Your task to perform on an android device: Search for the best custom wallets on Etsy. Image 0: 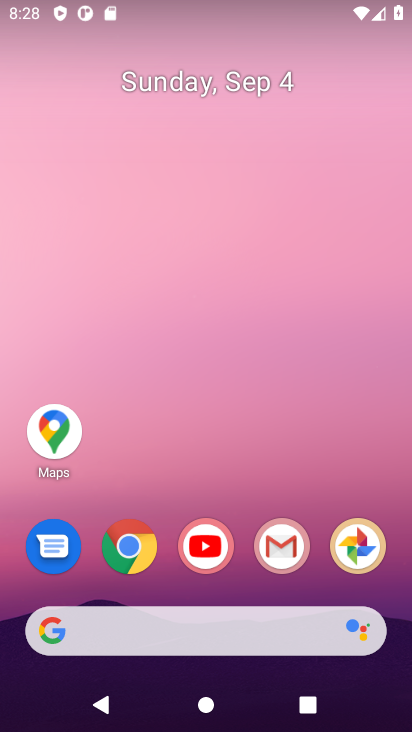
Step 0: click (137, 547)
Your task to perform on an android device: Search for the best custom wallets on Etsy. Image 1: 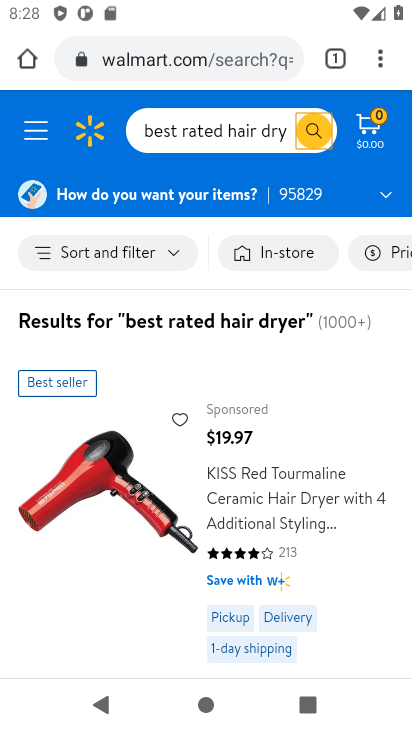
Step 1: click (154, 57)
Your task to perform on an android device: Search for the best custom wallets on Etsy. Image 2: 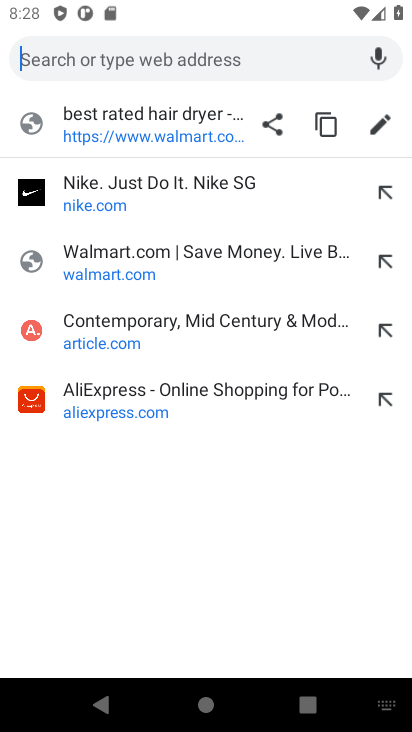
Step 2: type "Etsy."
Your task to perform on an android device: Search for the best custom wallets on Etsy. Image 3: 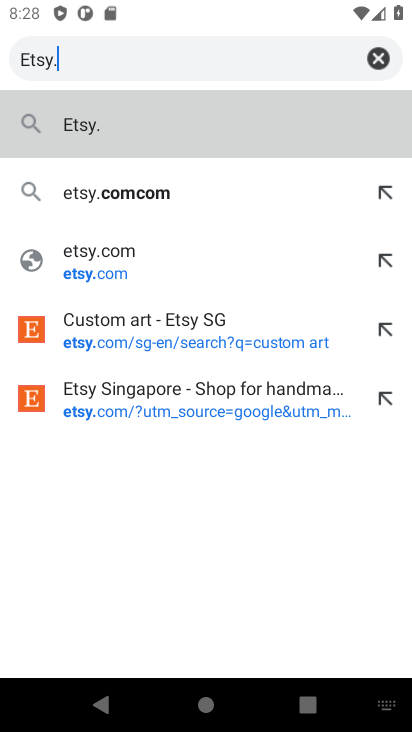
Step 3: click (78, 142)
Your task to perform on an android device: Search for the best custom wallets on Etsy. Image 4: 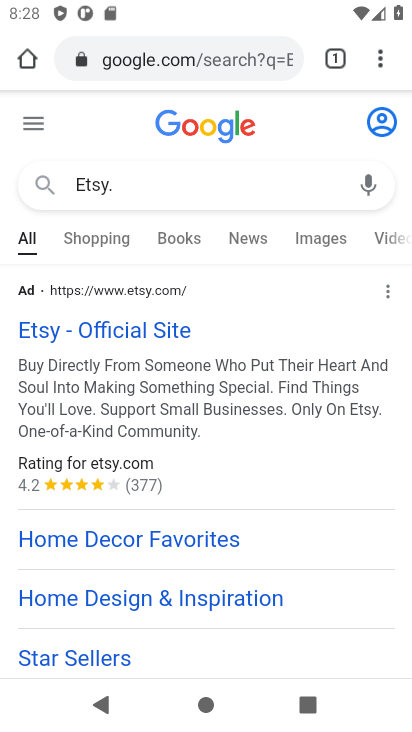
Step 4: click (86, 333)
Your task to perform on an android device: Search for the best custom wallets on Etsy. Image 5: 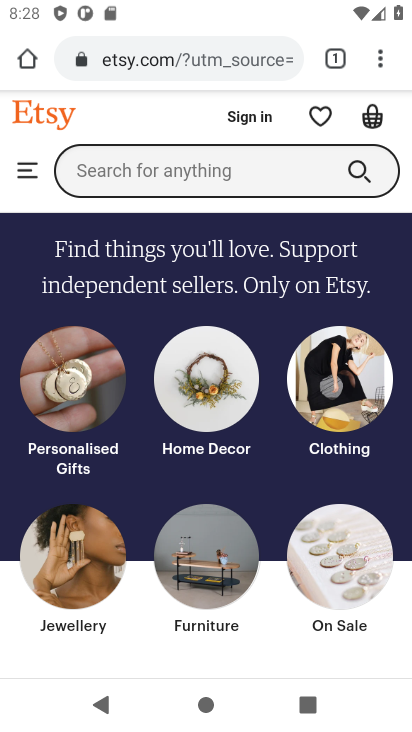
Step 5: click (174, 168)
Your task to perform on an android device: Search for the best custom wallets on Etsy. Image 6: 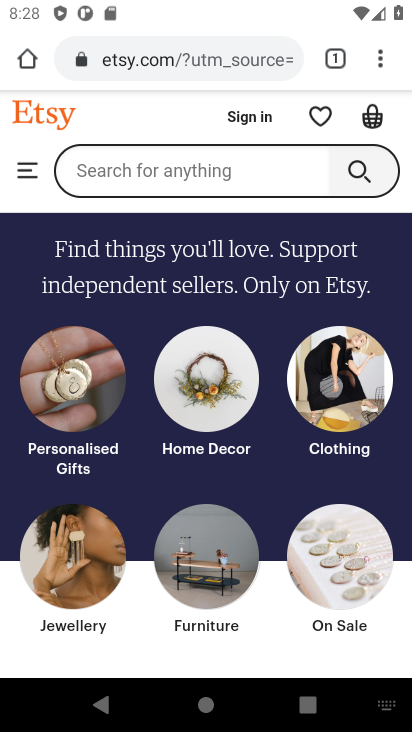
Step 6: type "best custom wallets"
Your task to perform on an android device: Search for the best custom wallets on Etsy. Image 7: 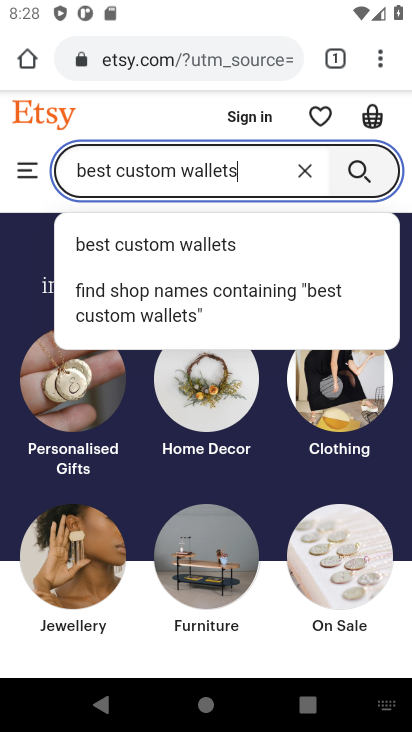
Step 7: click (203, 245)
Your task to perform on an android device: Search for the best custom wallets on Etsy. Image 8: 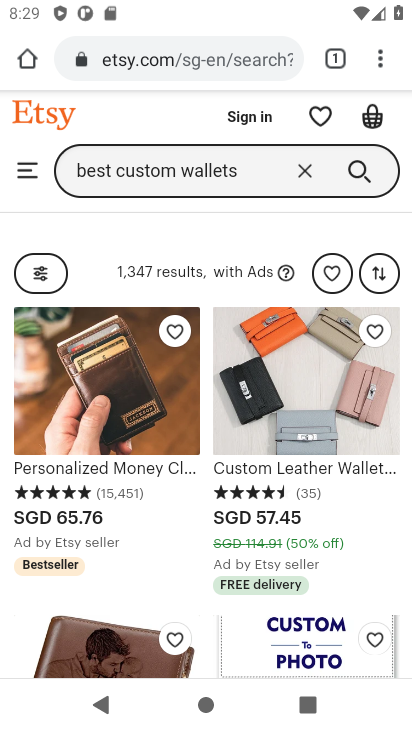
Step 8: task complete